Your task to perform on an android device: Check the news Image 0: 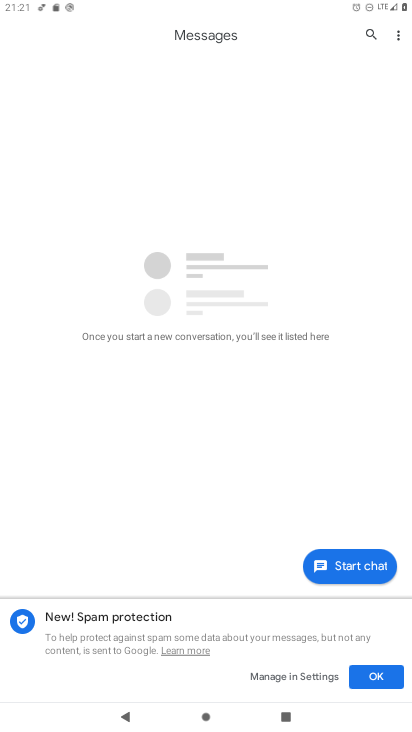
Step 0: press home button
Your task to perform on an android device: Check the news Image 1: 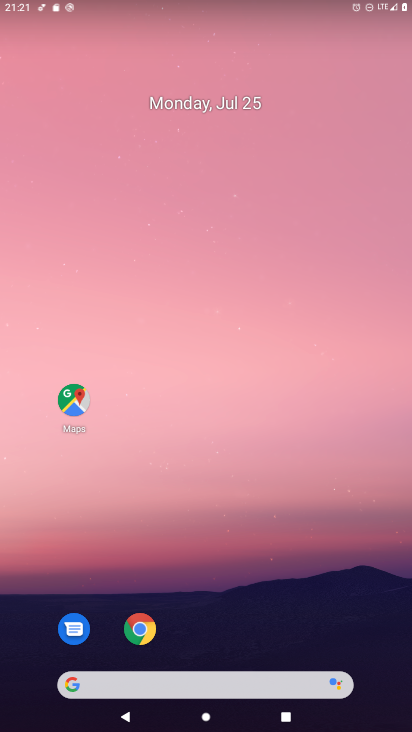
Step 1: click (140, 632)
Your task to perform on an android device: Check the news Image 2: 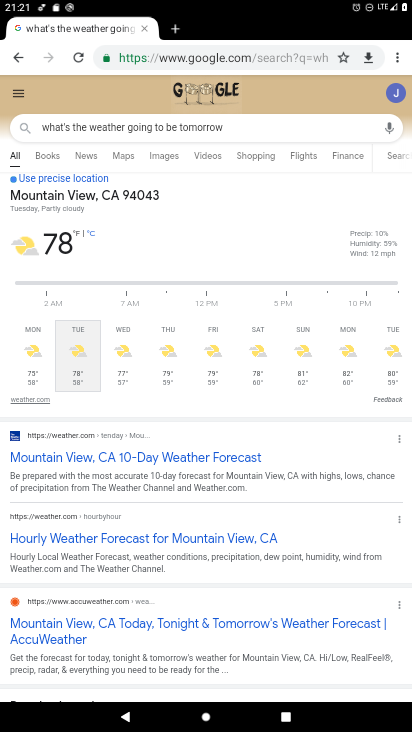
Step 2: click (296, 64)
Your task to perform on an android device: Check the news Image 3: 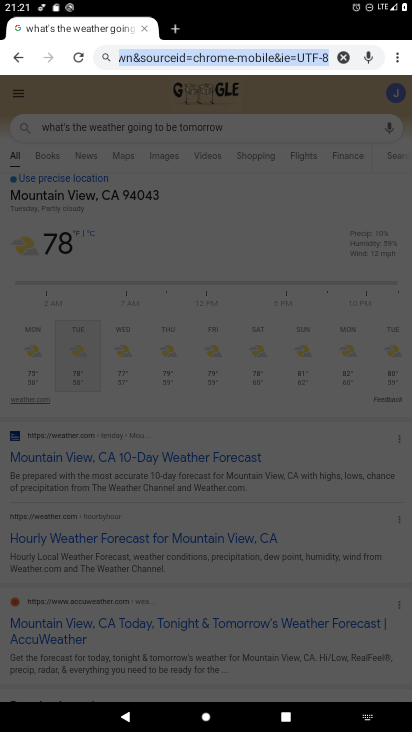
Step 3: type "news"
Your task to perform on an android device: Check the news Image 4: 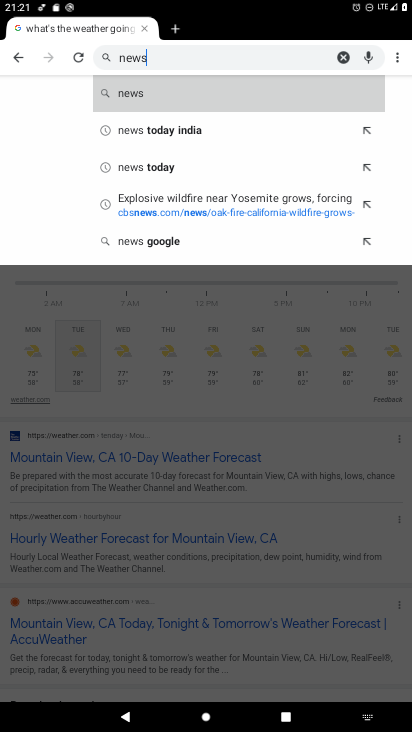
Step 4: click (146, 104)
Your task to perform on an android device: Check the news Image 5: 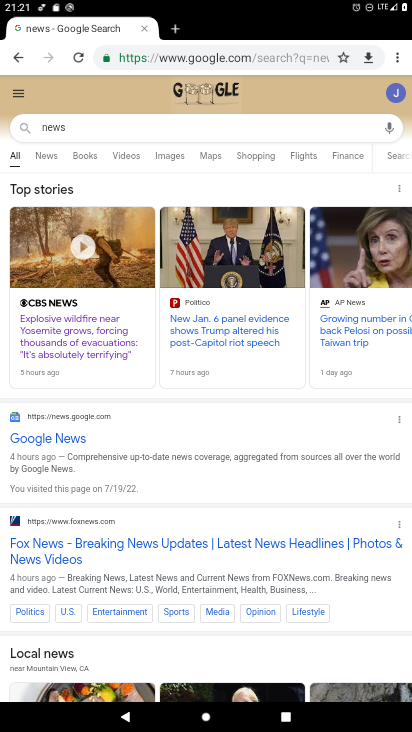
Step 5: click (104, 334)
Your task to perform on an android device: Check the news Image 6: 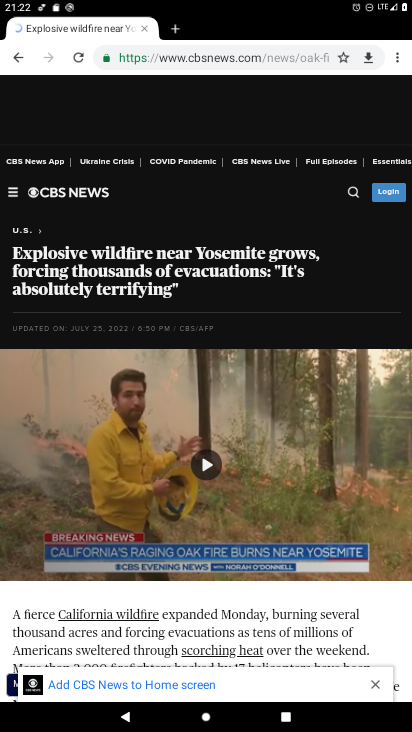
Step 6: task complete